Your task to perform on an android device: open sync settings in chrome Image 0: 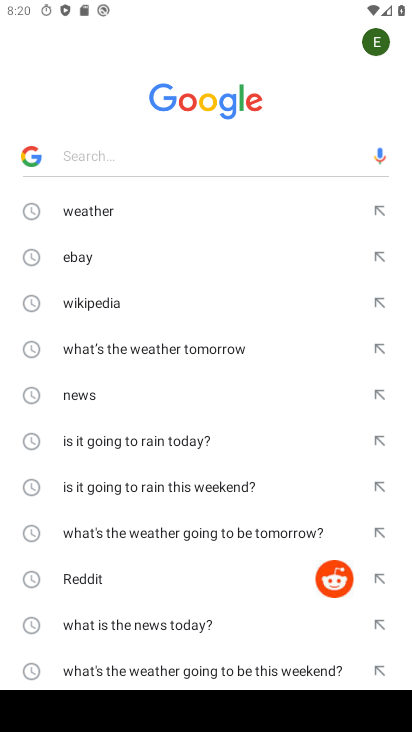
Step 0: press home button
Your task to perform on an android device: open sync settings in chrome Image 1: 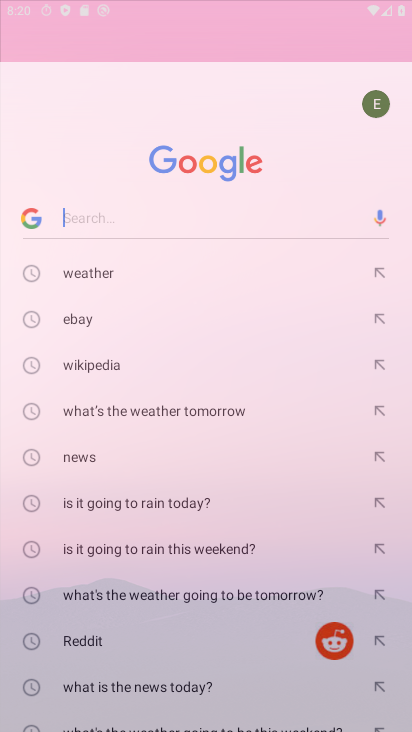
Step 1: drag from (165, 392) to (229, 162)
Your task to perform on an android device: open sync settings in chrome Image 2: 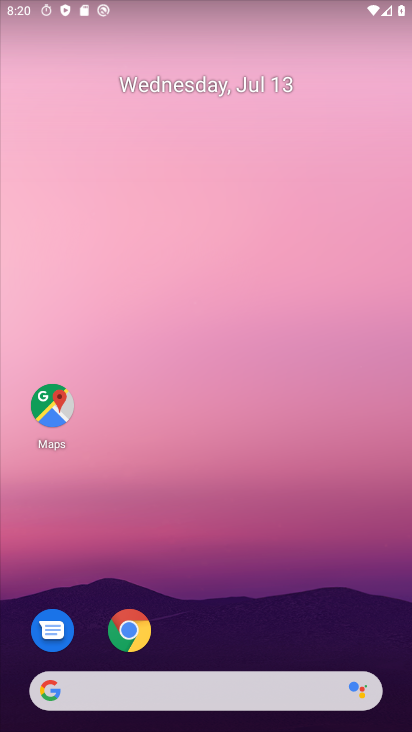
Step 2: click (133, 627)
Your task to perform on an android device: open sync settings in chrome Image 3: 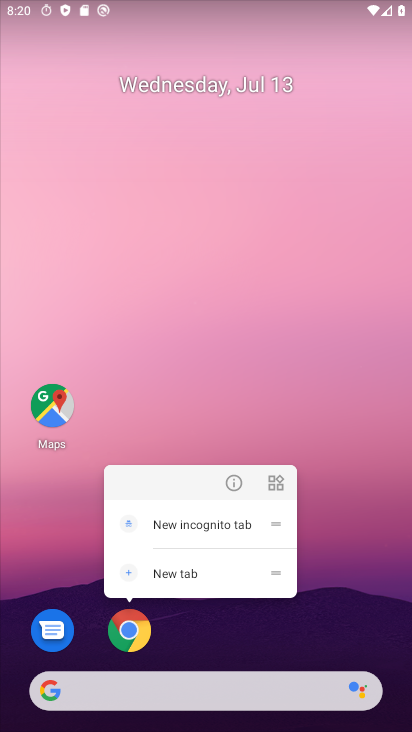
Step 3: click (230, 475)
Your task to perform on an android device: open sync settings in chrome Image 4: 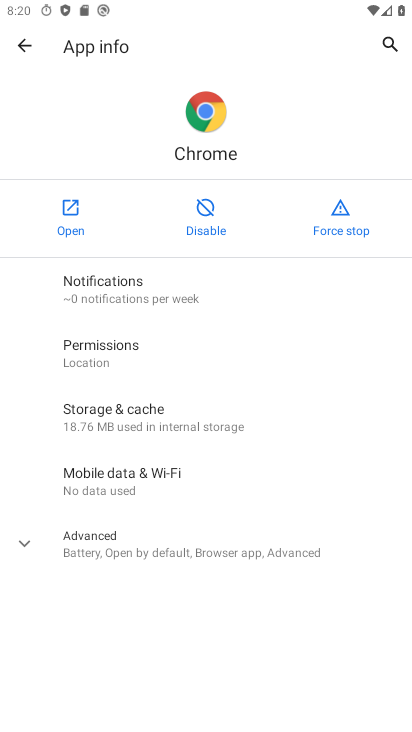
Step 4: click (79, 228)
Your task to perform on an android device: open sync settings in chrome Image 5: 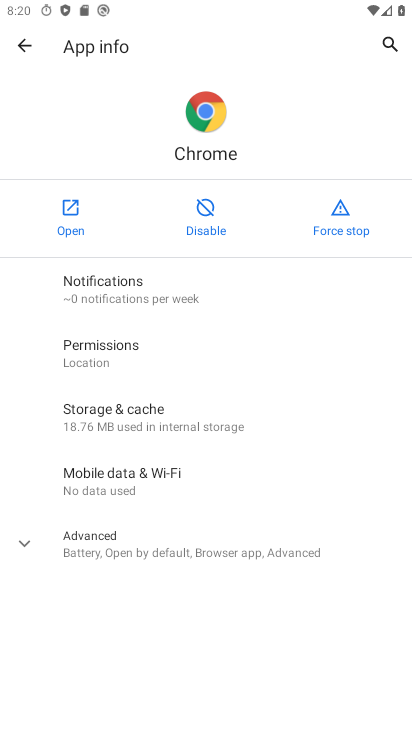
Step 5: click (80, 227)
Your task to perform on an android device: open sync settings in chrome Image 6: 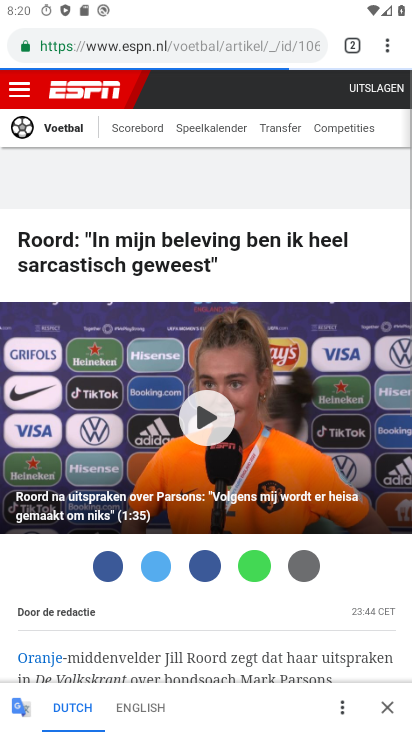
Step 6: drag from (262, 336) to (267, 168)
Your task to perform on an android device: open sync settings in chrome Image 7: 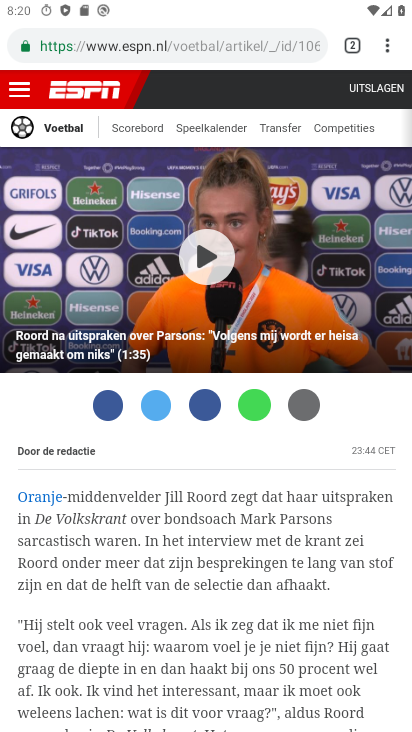
Step 7: click (395, 56)
Your task to perform on an android device: open sync settings in chrome Image 8: 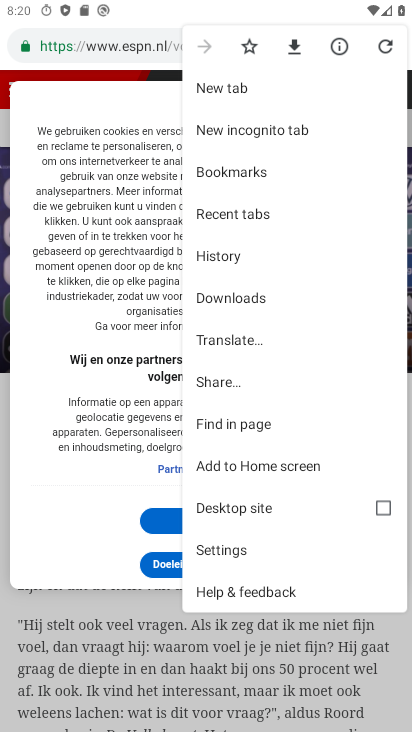
Step 8: drag from (275, 509) to (275, 196)
Your task to perform on an android device: open sync settings in chrome Image 9: 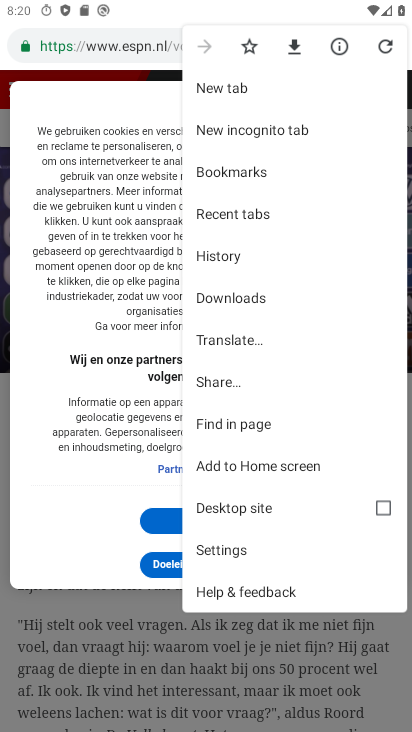
Step 9: click (229, 544)
Your task to perform on an android device: open sync settings in chrome Image 10: 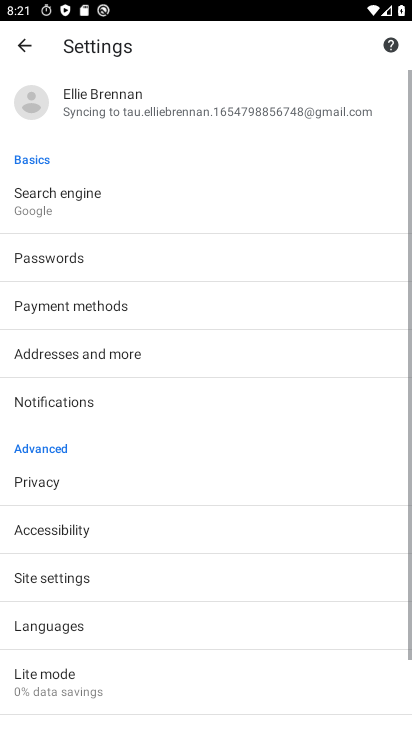
Step 10: drag from (207, 589) to (235, 299)
Your task to perform on an android device: open sync settings in chrome Image 11: 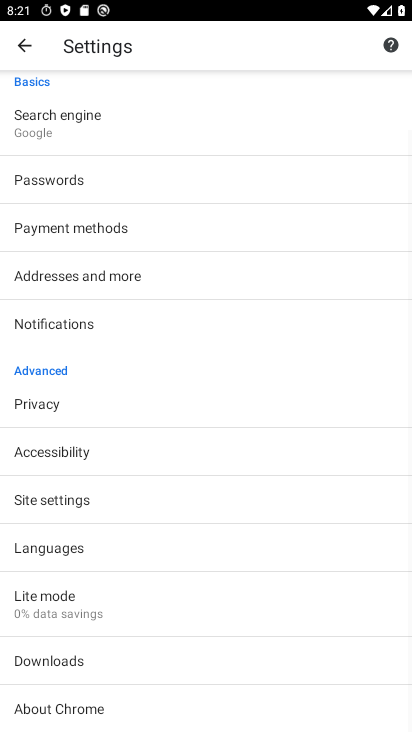
Step 11: click (95, 492)
Your task to perform on an android device: open sync settings in chrome Image 12: 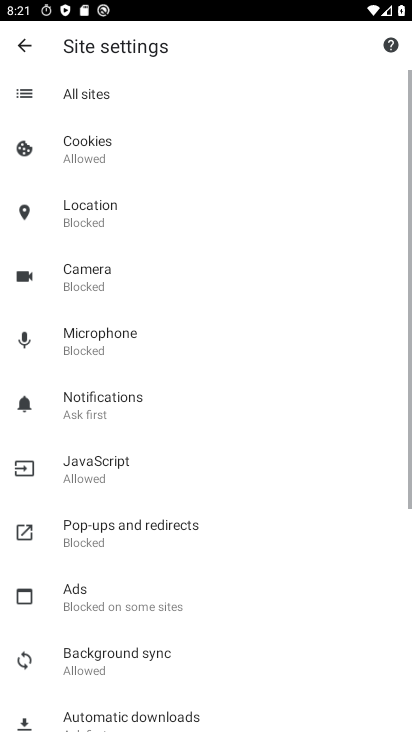
Step 12: drag from (171, 462) to (207, 261)
Your task to perform on an android device: open sync settings in chrome Image 13: 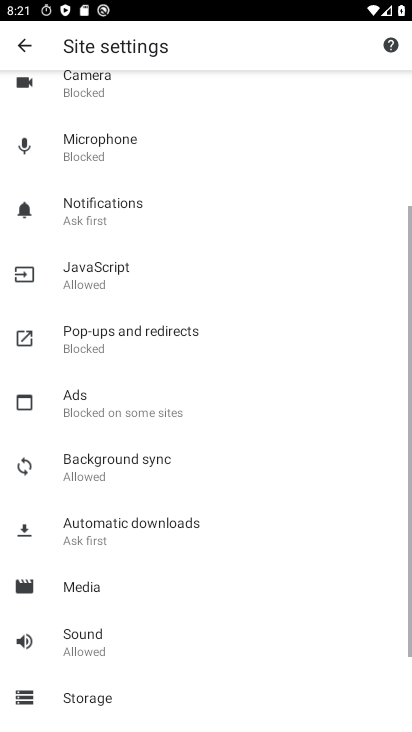
Step 13: click (129, 468)
Your task to perform on an android device: open sync settings in chrome Image 14: 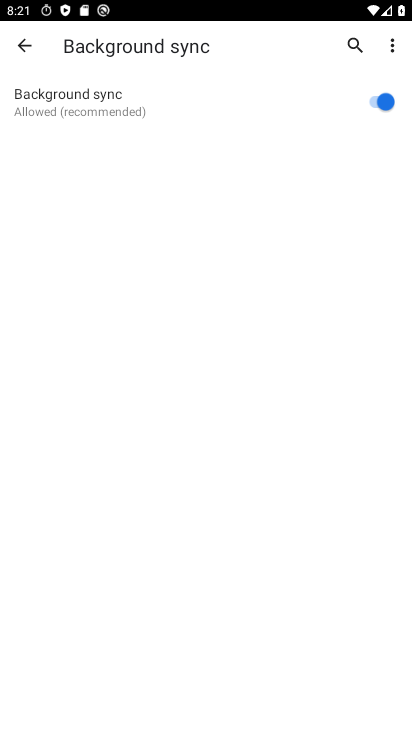
Step 14: task complete